Your task to perform on an android device: turn off wifi Image 0: 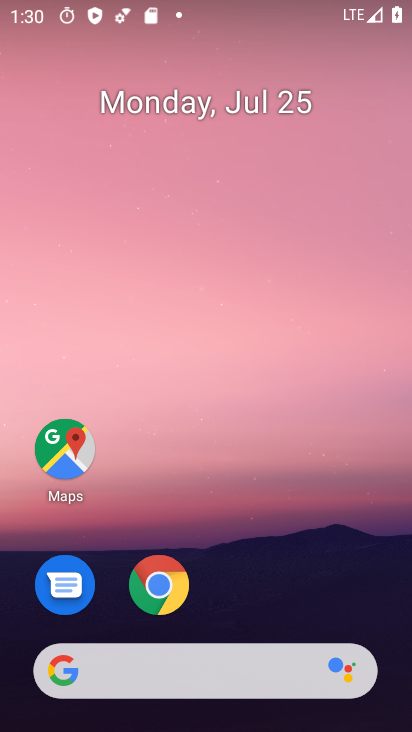
Step 0: click (127, 151)
Your task to perform on an android device: turn off wifi Image 1: 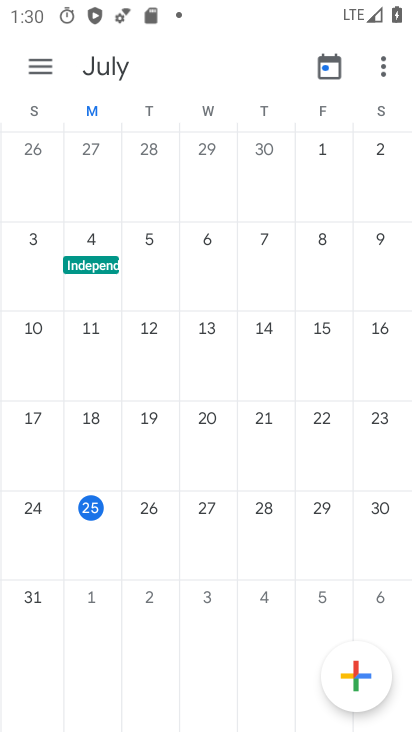
Step 1: press home button
Your task to perform on an android device: turn off wifi Image 2: 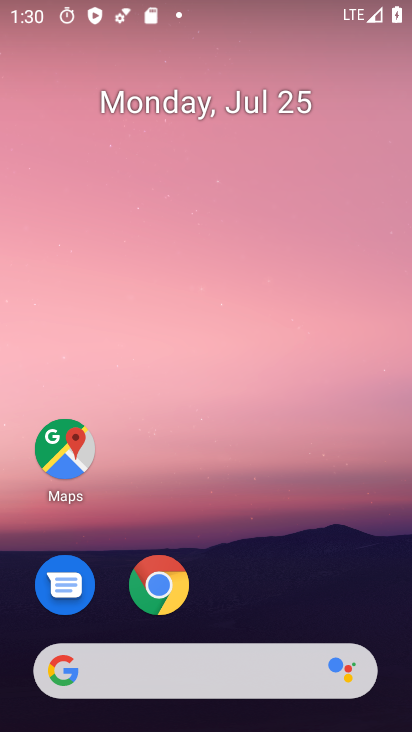
Step 2: drag from (231, 678) to (227, 14)
Your task to perform on an android device: turn off wifi Image 3: 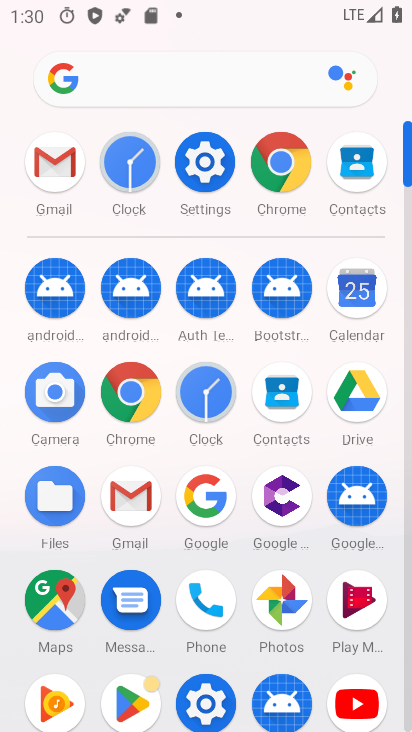
Step 3: click (198, 183)
Your task to perform on an android device: turn off wifi Image 4: 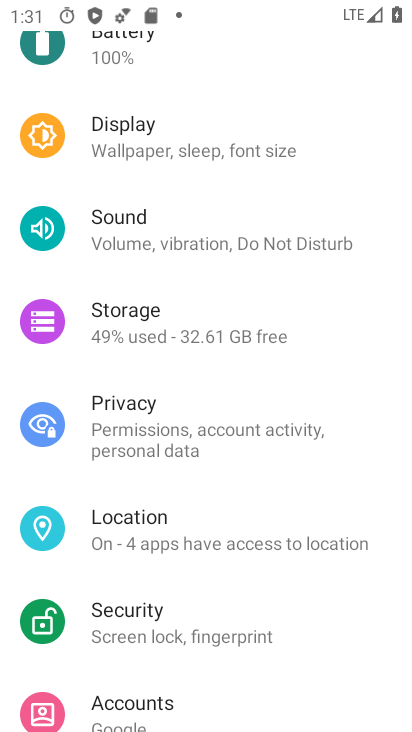
Step 4: drag from (178, 141) to (200, 730)
Your task to perform on an android device: turn off wifi Image 5: 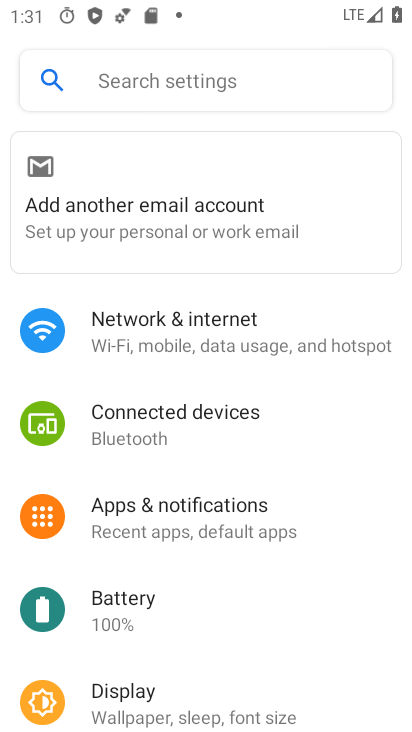
Step 5: click (155, 344)
Your task to perform on an android device: turn off wifi Image 6: 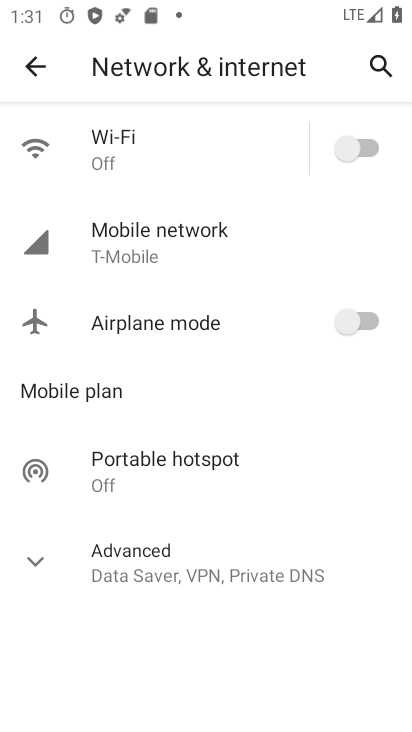
Step 6: task complete